Your task to perform on an android device: Open network settings Image 0: 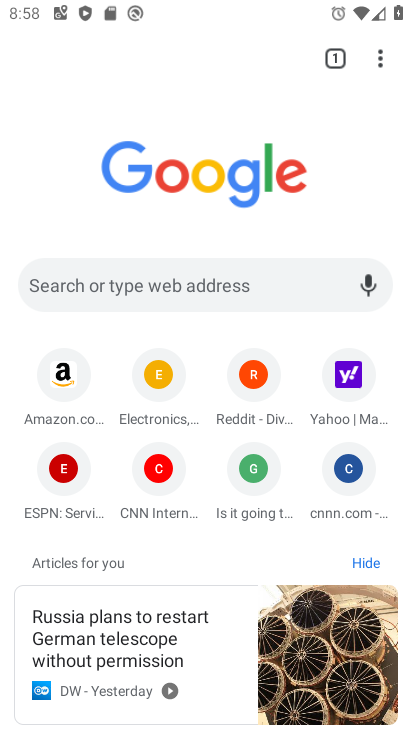
Step 0: press home button
Your task to perform on an android device: Open network settings Image 1: 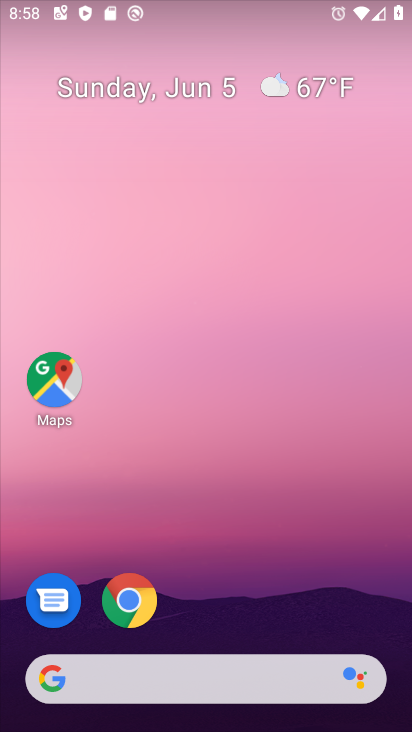
Step 1: drag from (405, 635) to (348, 8)
Your task to perform on an android device: Open network settings Image 2: 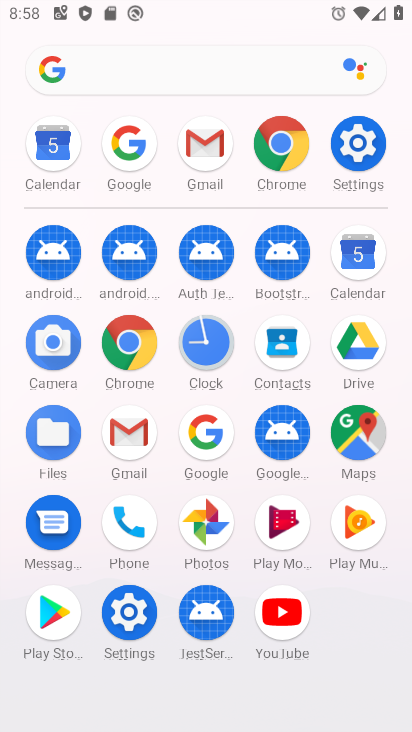
Step 2: click (356, 134)
Your task to perform on an android device: Open network settings Image 3: 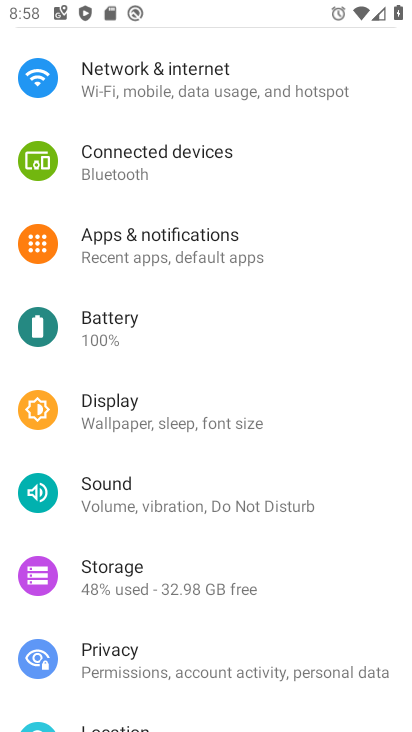
Step 3: click (204, 93)
Your task to perform on an android device: Open network settings Image 4: 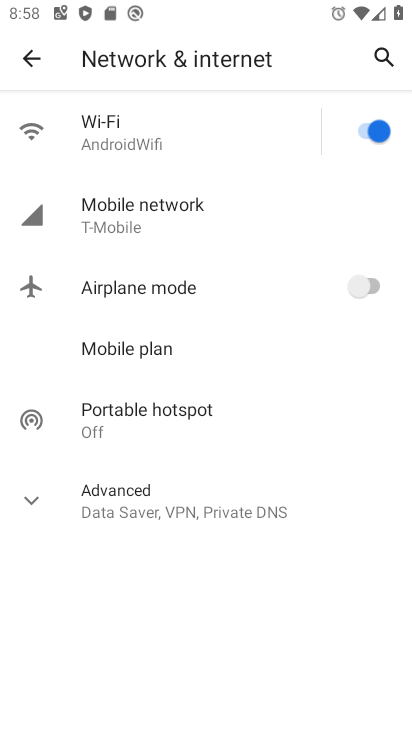
Step 4: task complete